Your task to perform on an android device: see tabs open on other devices in the chrome app Image 0: 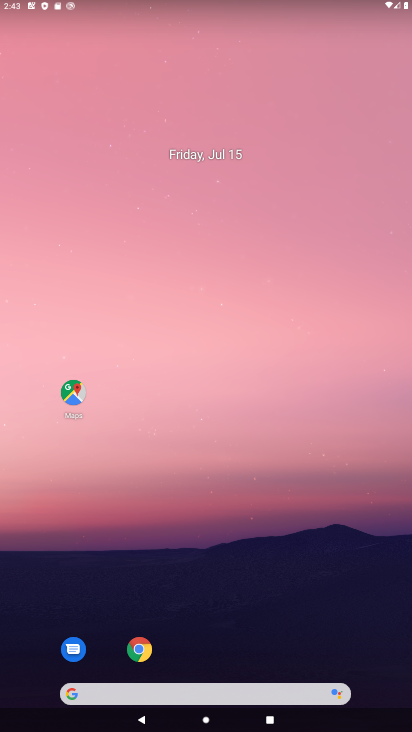
Step 0: drag from (304, 643) to (255, 151)
Your task to perform on an android device: see tabs open on other devices in the chrome app Image 1: 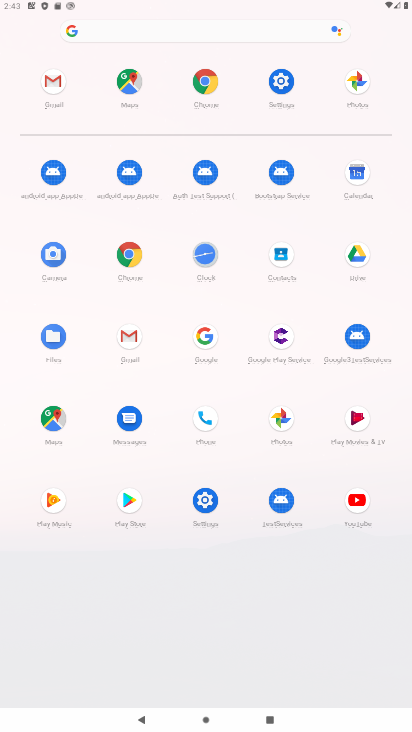
Step 1: click (132, 255)
Your task to perform on an android device: see tabs open on other devices in the chrome app Image 2: 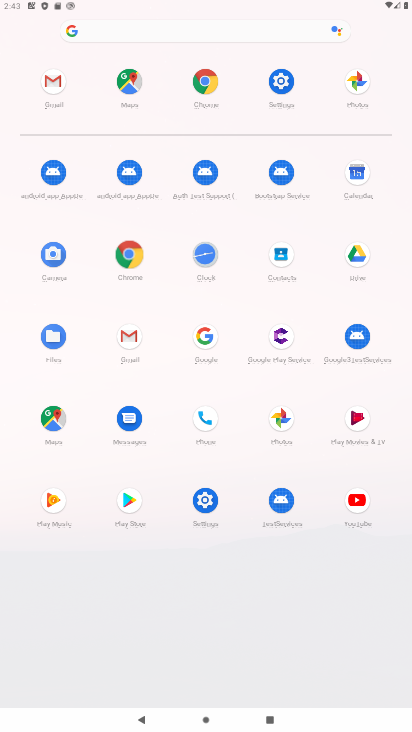
Step 2: click (131, 254)
Your task to perform on an android device: see tabs open on other devices in the chrome app Image 3: 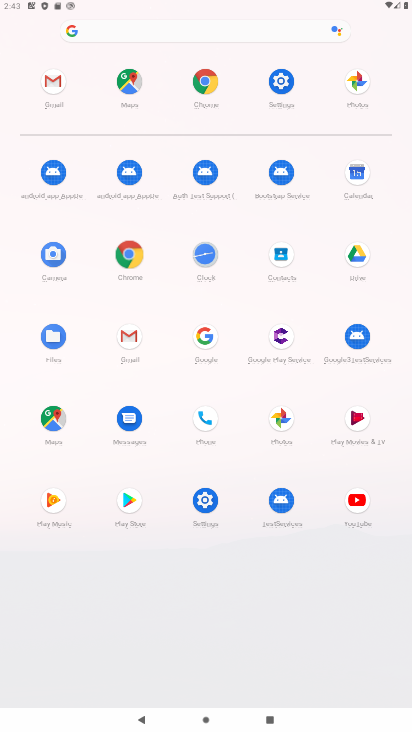
Step 3: click (131, 254)
Your task to perform on an android device: see tabs open on other devices in the chrome app Image 4: 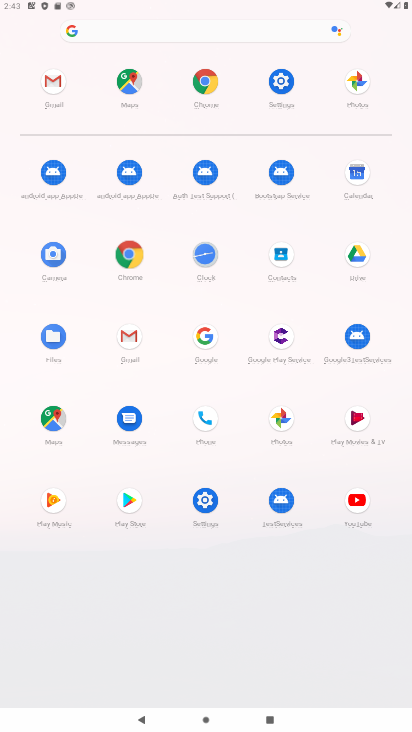
Step 4: click (131, 254)
Your task to perform on an android device: see tabs open on other devices in the chrome app Image 5: 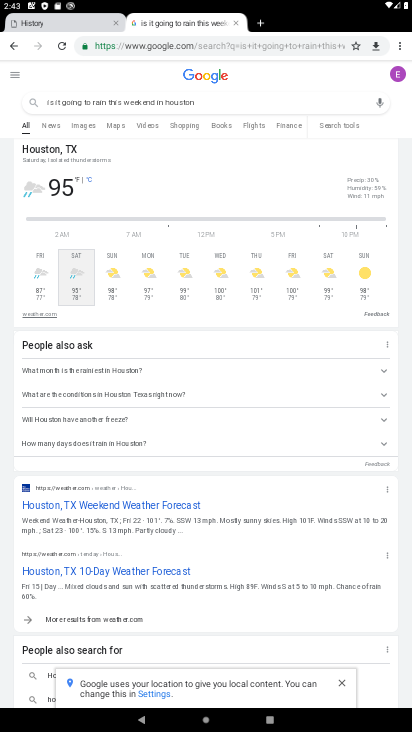
Step 5: drag from (402, 47) to (305, 115)
Your task to perform on an android device: see tabs open on other devices in the chrome app Image 6: 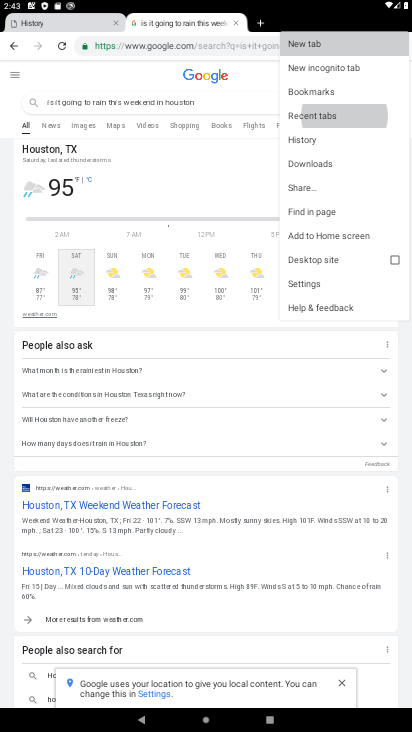
Step 6: drag from (400, 51) to (305, 116)
Your task to perform on an android device: see tabs open on other devices in the chrome app Image 7: 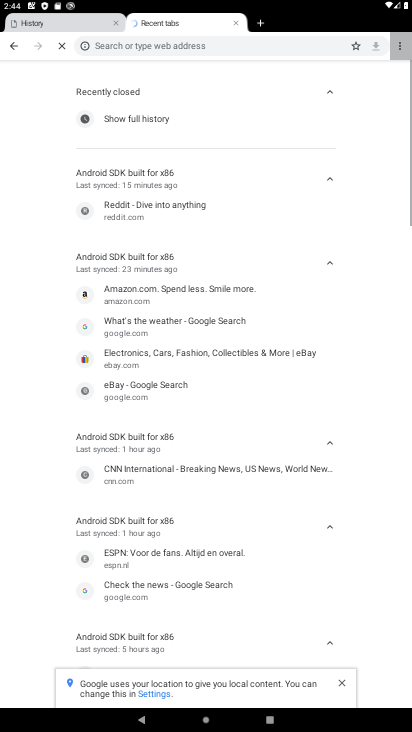
Step 7: click (305, 116)
Your task to perform on an android device: see tabs open on other devices in the chrome app Image 8: 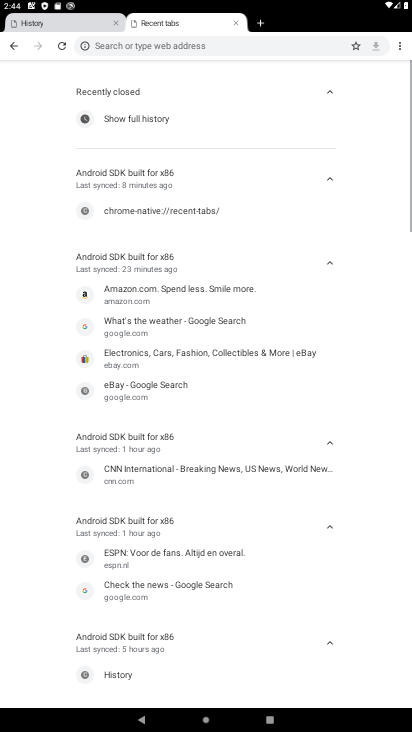
Step 8: task complete